Your task to perform on an android device: check android version Image 0: 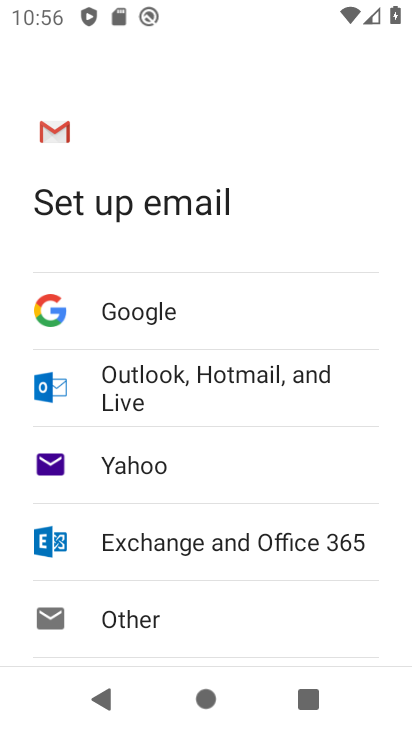
Step 0: drag from (269, 672) to (292, 234)
Your task to perform on an android device: check android version Image 1: 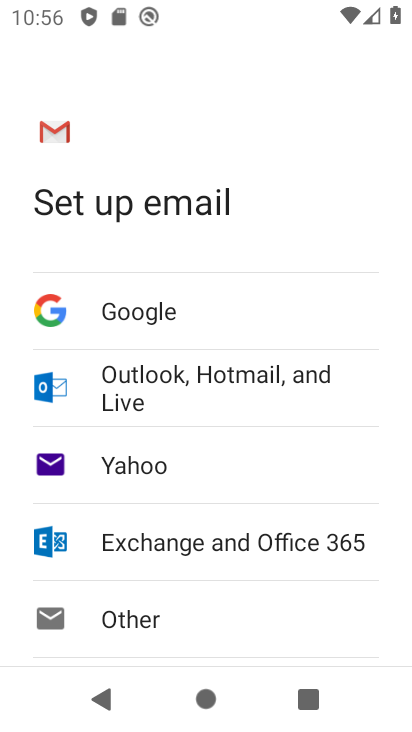
Step 1: press home button
Your task to perform on an android device: check android version Image 2: 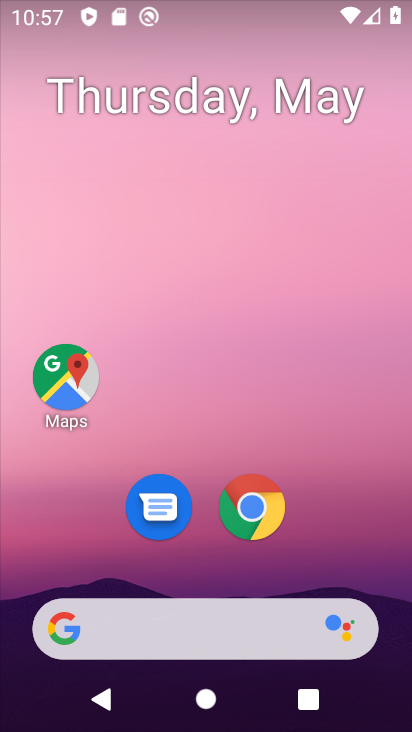
Step 2: drag from (179, 629) to (253, 21)
Your task to perform on an android device: check android version Image 3: 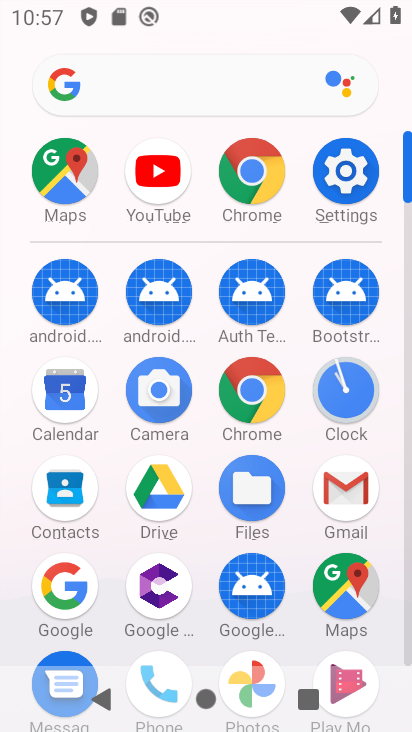
Step 3: click (353, 158)
Your task to perform on an android device: check android version Image 4: 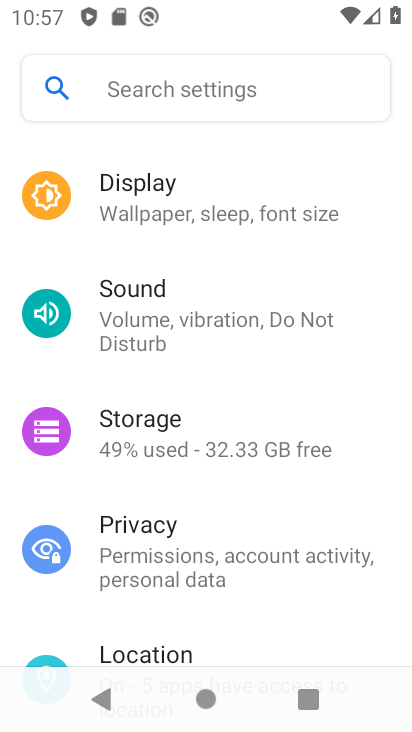
Step 4: drag from (216, 542) to (271, 5)
Your task to perform on an android device: check android version Image 5: 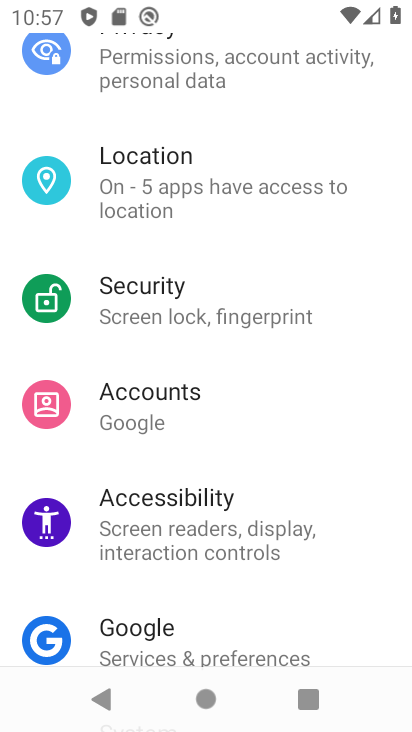
Step 5: drag from (224, 515) to (250, 48)
Your task to perform on an android device: check android version Image 6: 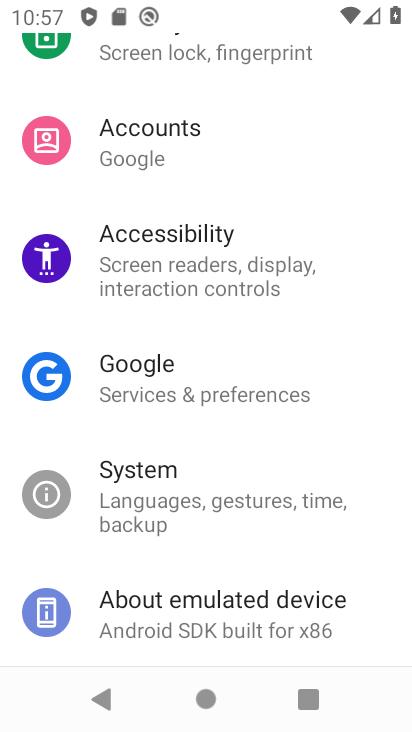
Step 6: click (274, 603)
Your task to perform on an android device: check android version Image 7: 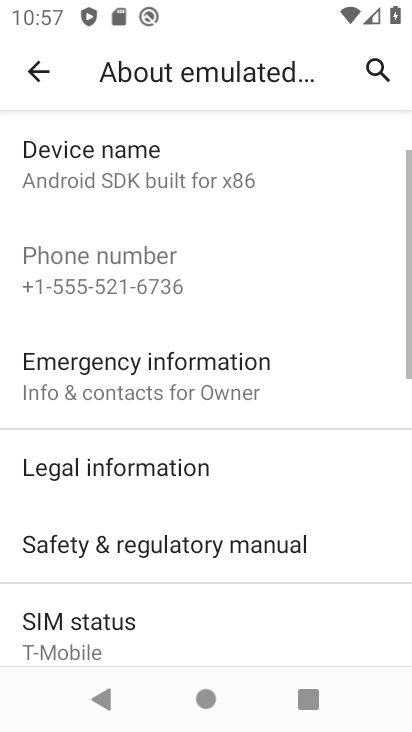
Step 7: drag from (212, 538) to (240, 231)
Your task to perform on an android device: check android version Image 8: 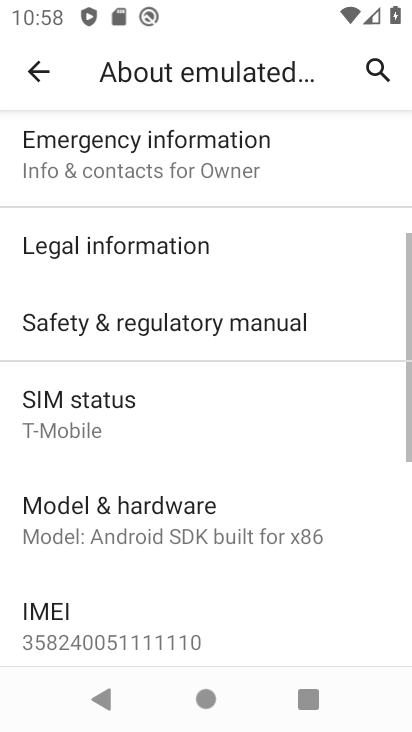
Step 8: drag from (191, 507) to (276, 68)
Your task to perform on an android device: check android version Image 9: 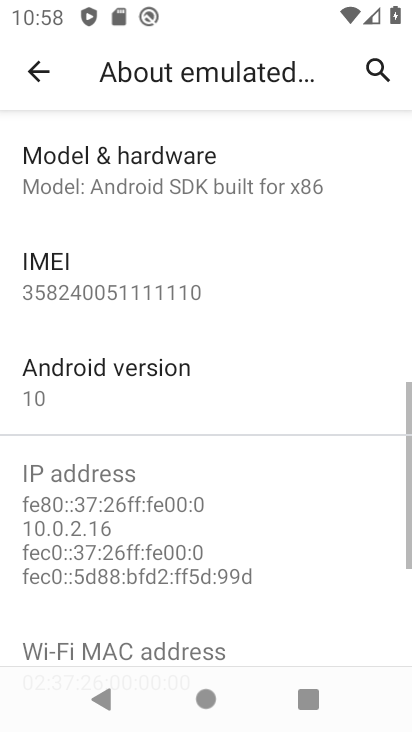
Step 9: drag from (197, 288) to (148, 461)
Your task to perform on an android device: check android version Image 10: 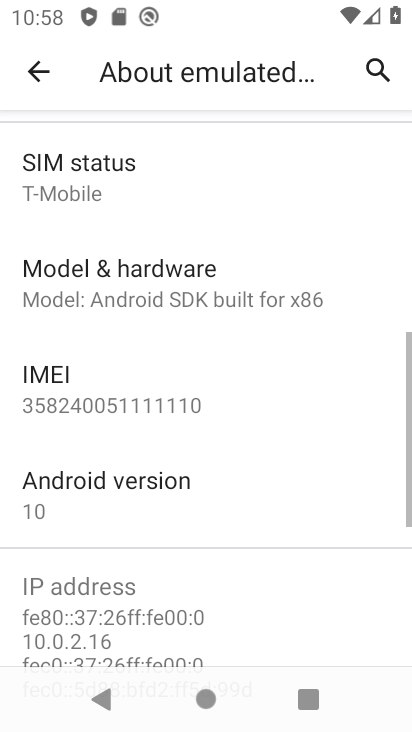
Step 10: click (183, 510)
Your task to perform on an android device: check android version Image 11: 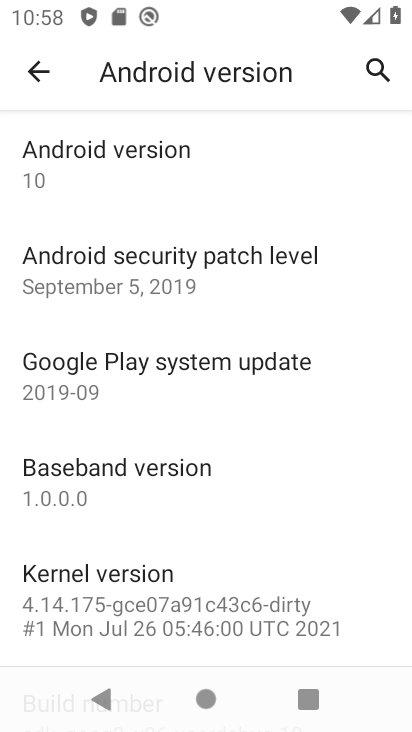
Step 11: task complete